Your task to perform on an android device: move an email to a new category in the gmail app Image 0: 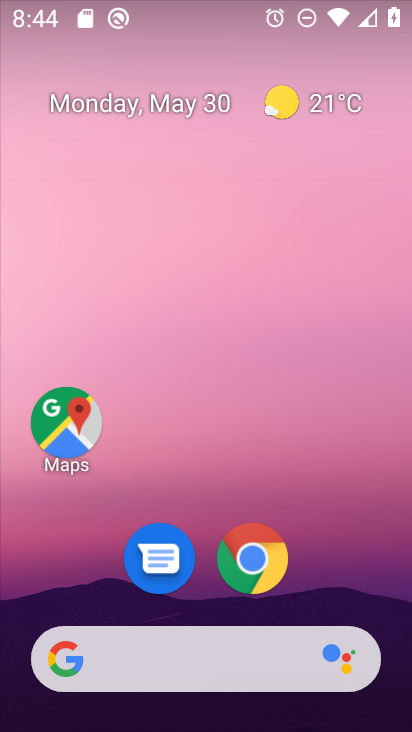
Step 0: drag from (315, 533) to (207, 72)
Your task to perform on an android device: move an email to a new category in the gmail app Image 1: 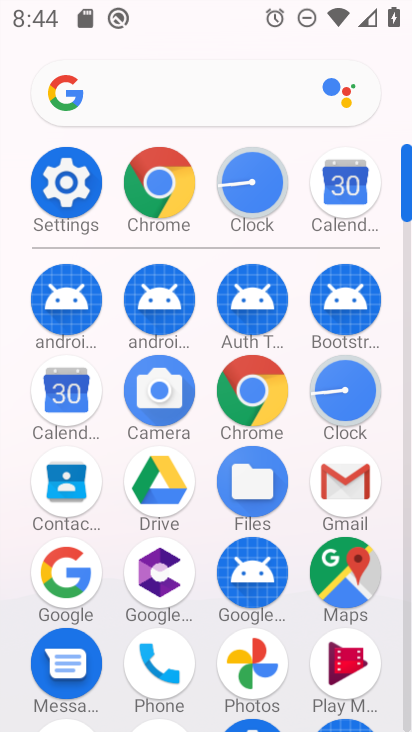
Step 1: click (333, 469)
Your task to perform on an android device: move an email to a new category in the gmail app Image 2: 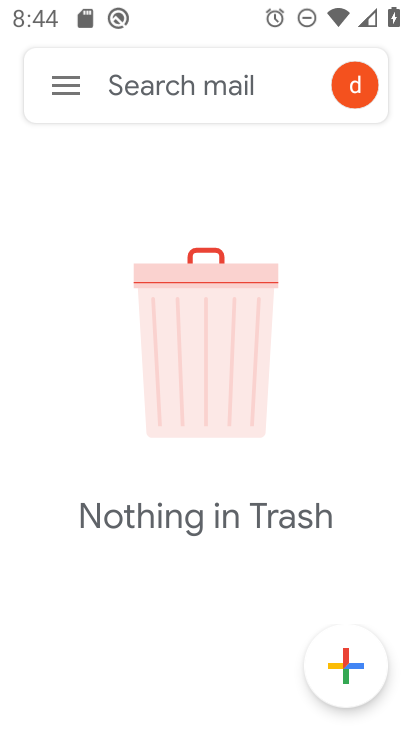
Step 2: click (64, 76)
Your task to perform on an android device: move an email to a new category in the gmail app Image 3: 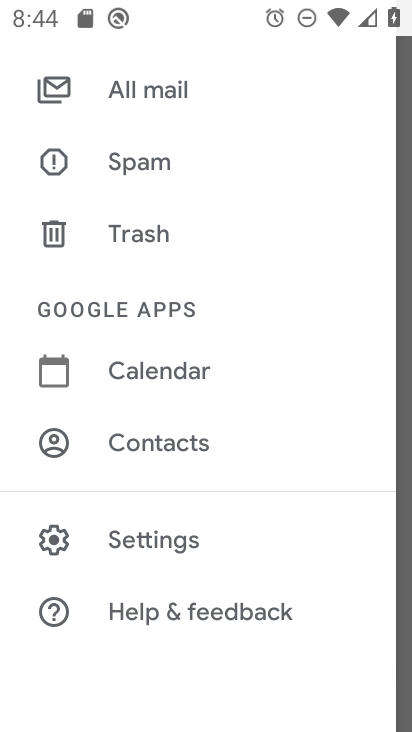
Step 3: click (139, 84)
Your task to perform on an android device: move an email to a new category in the gmail app Image 4: 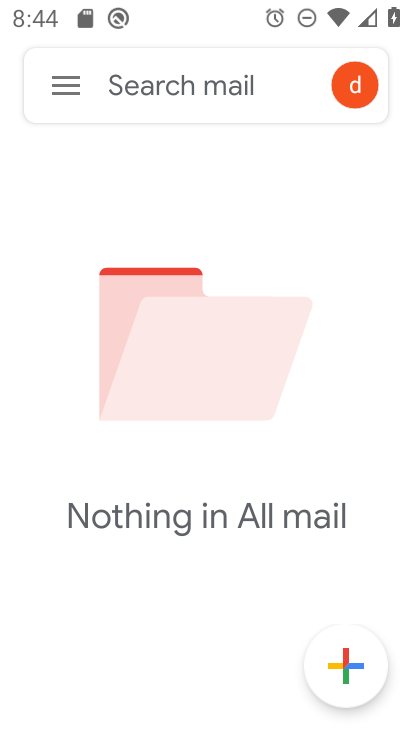
Step 4: task complete